Your task to perform on an android device: toggle pop-ups in chrome Image 0: 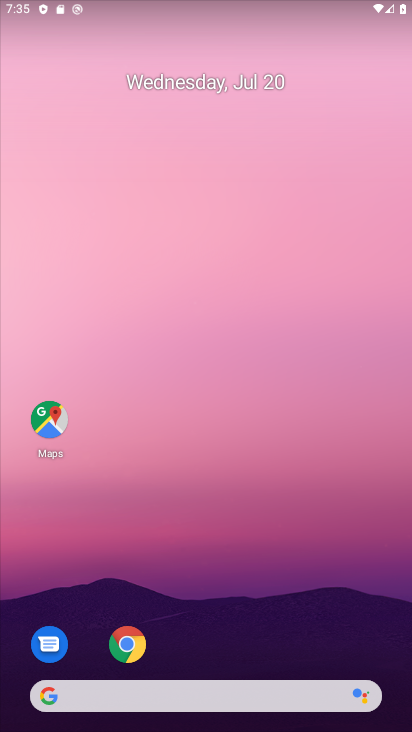
Step 0: click (127, 642)
Your task to perform on an android device: toggle pop-ups in chrome Image 1: 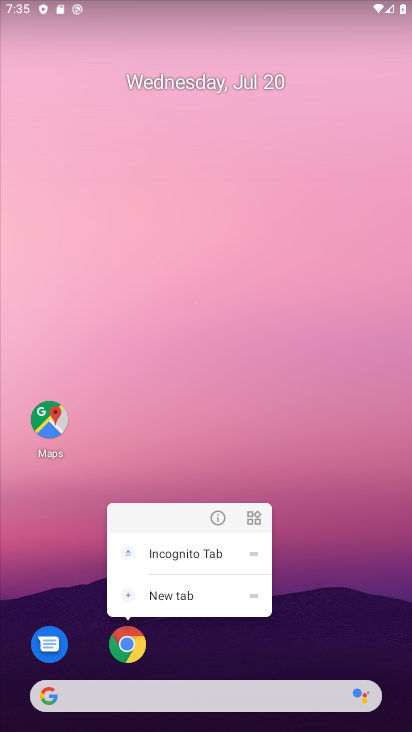
Step 1: click (127, 642)
Your task to perform on an android device: toggle pop-ups in chrome Image 2: 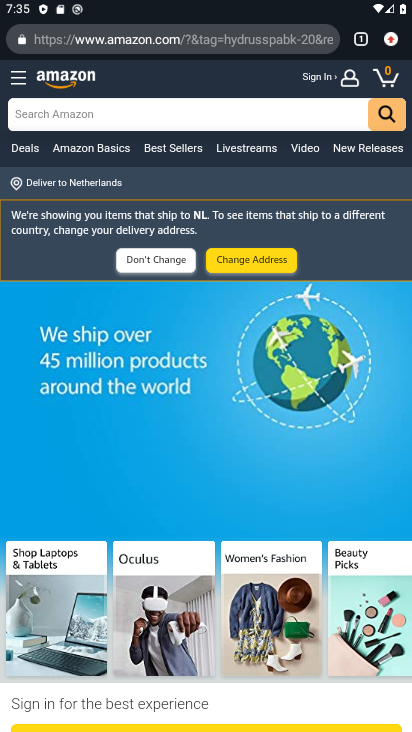
Step 2: click (396, 40)
Your task to perform on an android device: toggle pop-ups in chrome Image 3: 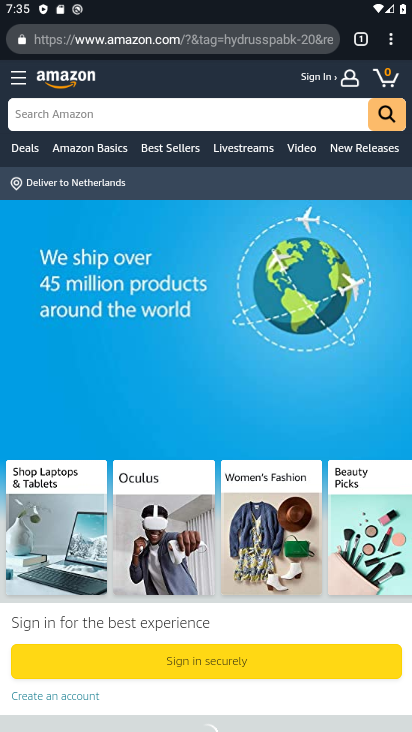
Step 3: click (396, 40)
Your task to perform on an android device: toggle pop-ups in chrome Image 4: 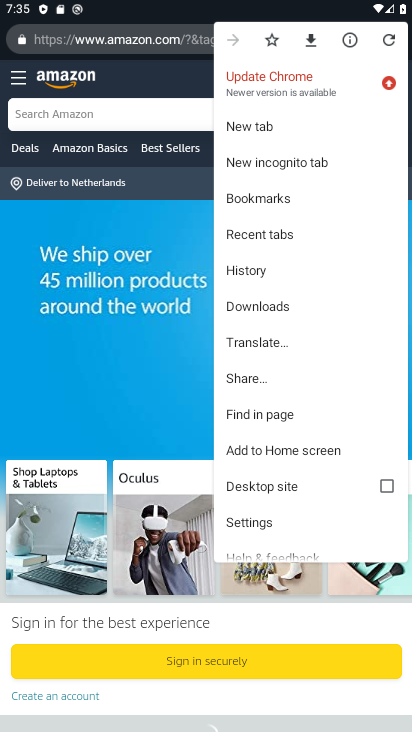
Step 4: click (270, 519)
Your task to perform on an android device: toggle pop-ups in chrome Image 5: 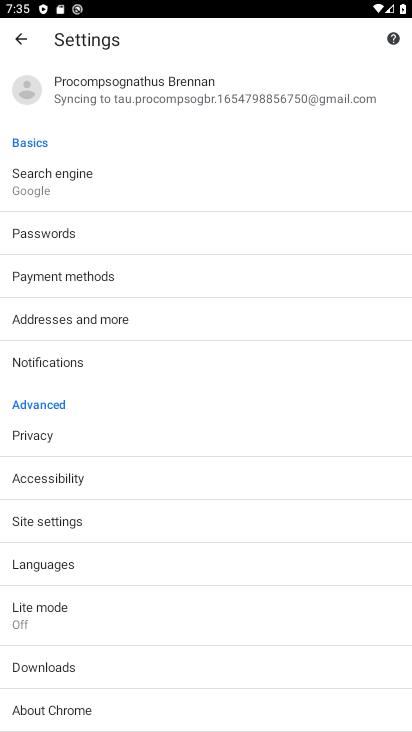
Step 5: click (46, 515)
Your task to perform on an android device: toggle pop-ups in chrome Image 6: 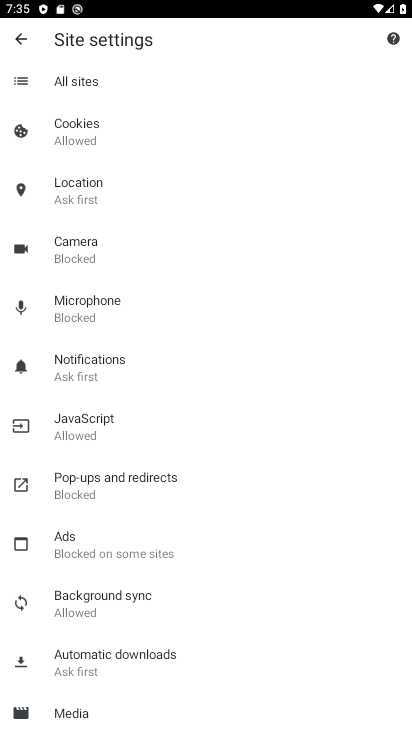
Step 6: click (66, 480)
Your task to perform on an android device: toggle pop-ups in chrome Image 7: 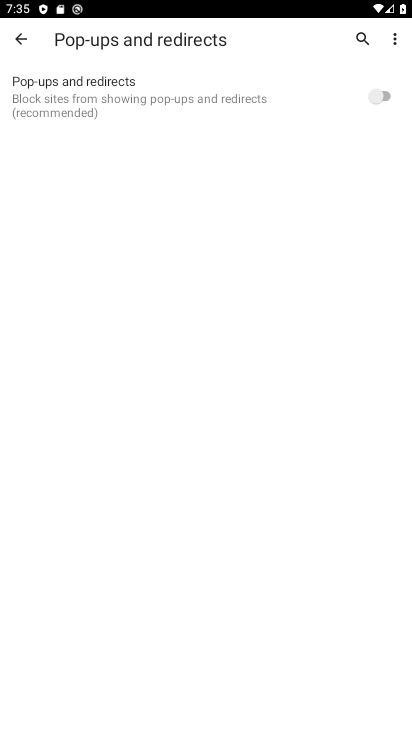
Step 7: click (383, 99)
Your task to perform on an android device: toggle pop-ups in chrome Image 8: 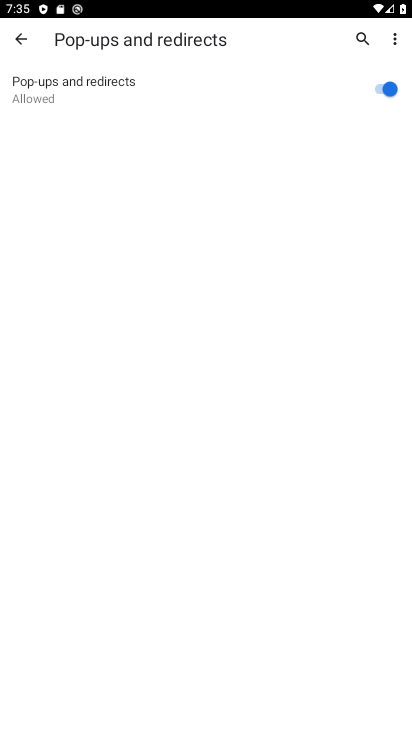
Step 8: task complete